Your task to perform on an android device: turn notification dots off Image 0: 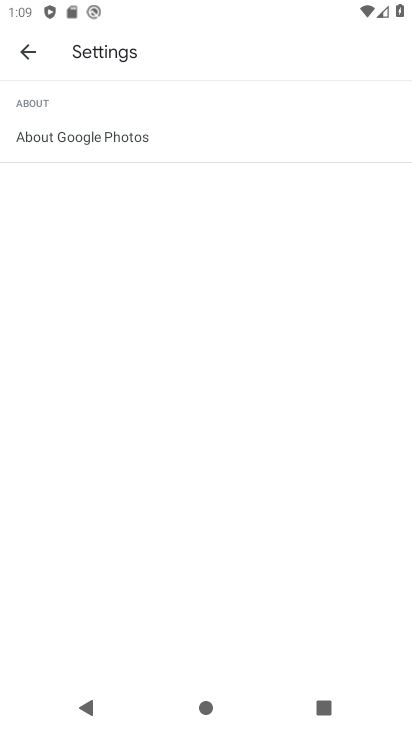
Step 0: press home button
Your task to perform on an android device: turn notification dots off Image 1: 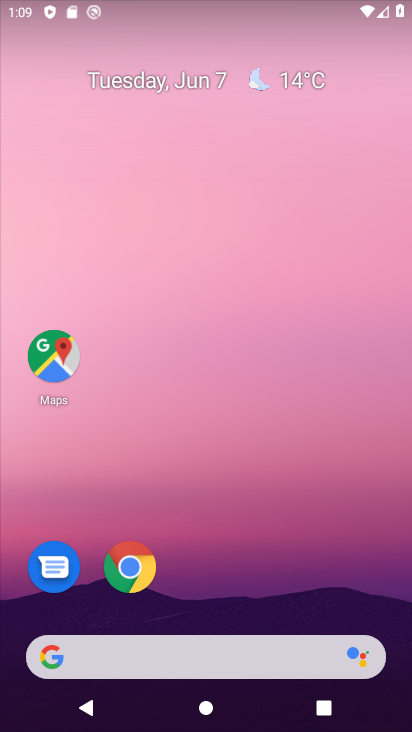
Step 1: drag from (197, 588) to (198, 64)
Your task to perform on an android device: turn notification dots off Image 2: 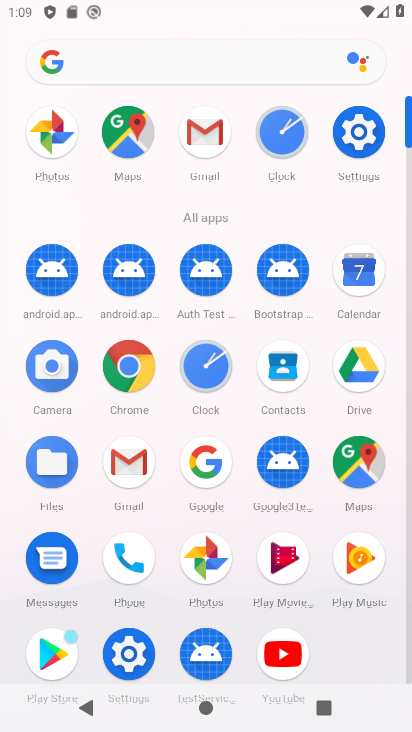
Step 2: click (125, 660)
Your task to perform on an android device: turn notification dots off Image 3: 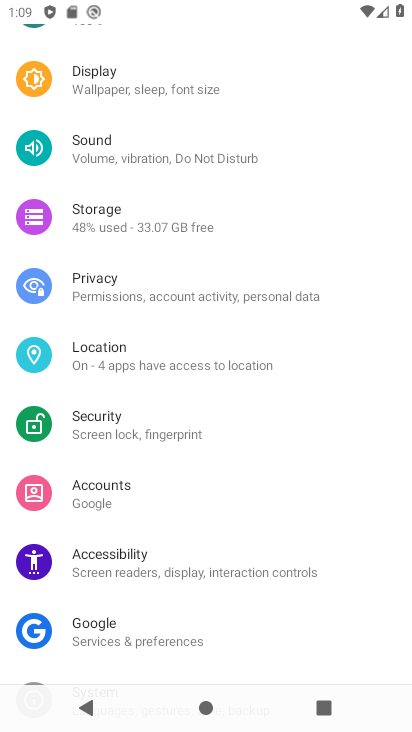
Step 3: drag from (191, 158) to (201, 562)
Your task to perform on an android device: turn notification dots off Image 4: 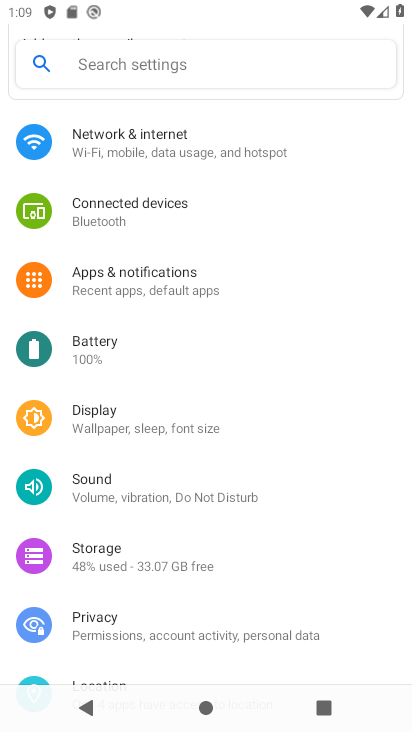
Step 4: click (161, 277)
Your task to perform on an android device: turn notification dots off Image 5: 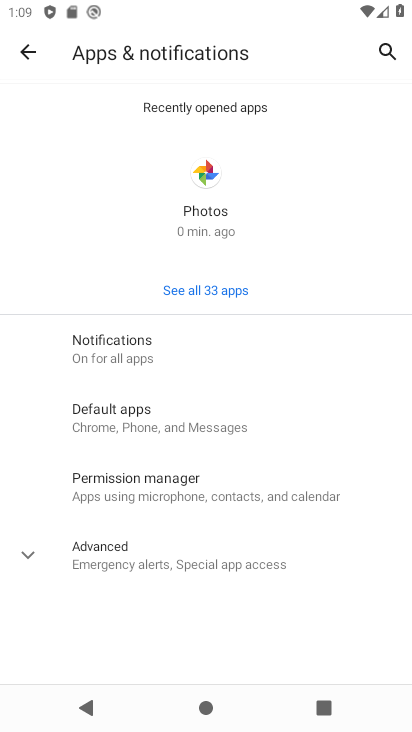
Step 5: click (146, 343)
Your task to perform on an android device: turn notification dots off Image 6: 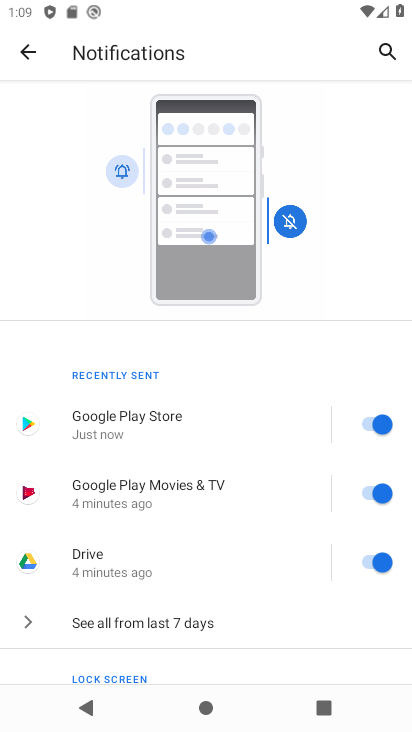
Step 6: drag from (232, 536) to (200, 163)
Your task to perform on an android device: turn notification dots off Image 7: 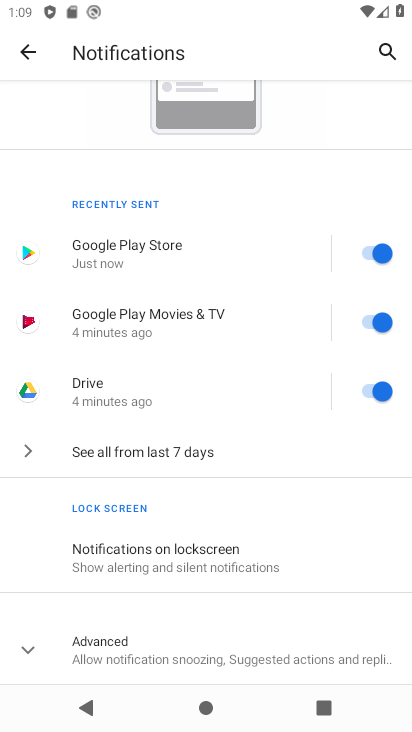
Step 7: click (101, 651)
Your task to perform on an android device: turn notification dots off Image 8: 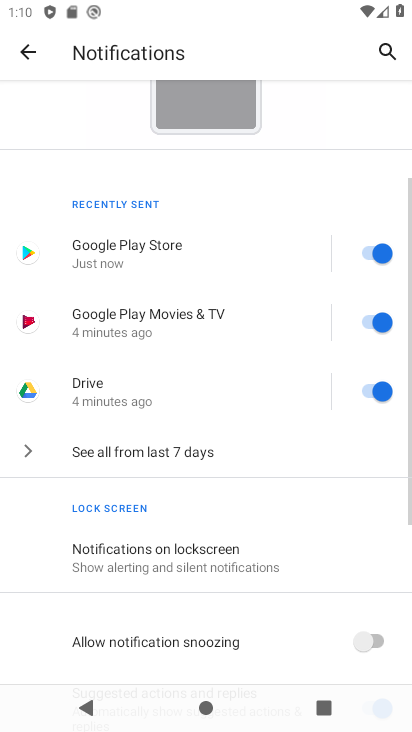
Step 8: drag from (161, 610) to (180, 269)
Your task to perform on an android device: turn notification dots off Image 9: 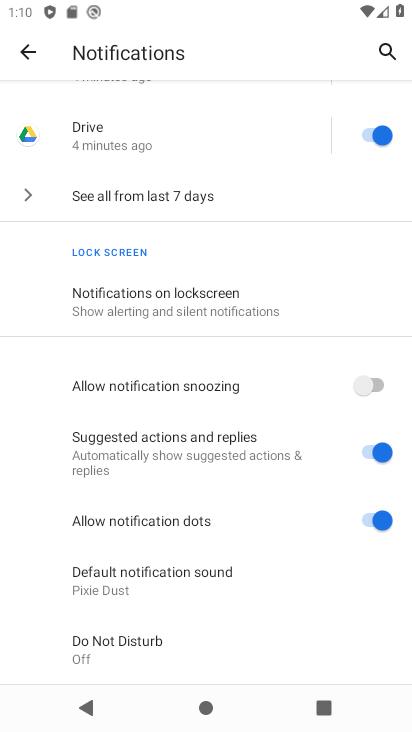
Step 9: click (376, 514)
Your task to perform on an android device: turn notification dots off Image 10: 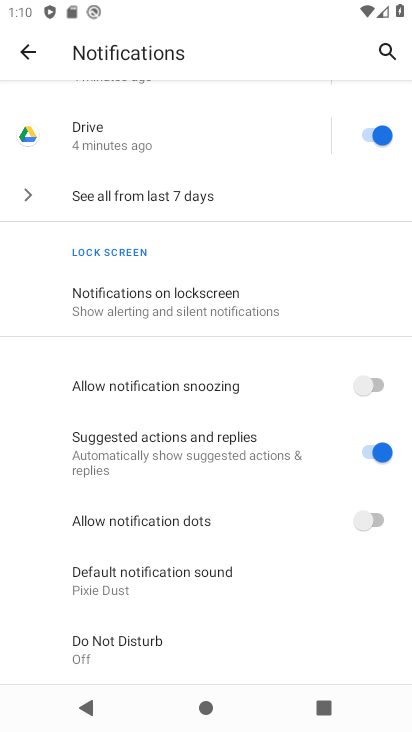
Step 10: task complete